Your task to perform on an android device: turn on airplane mode Image 0: 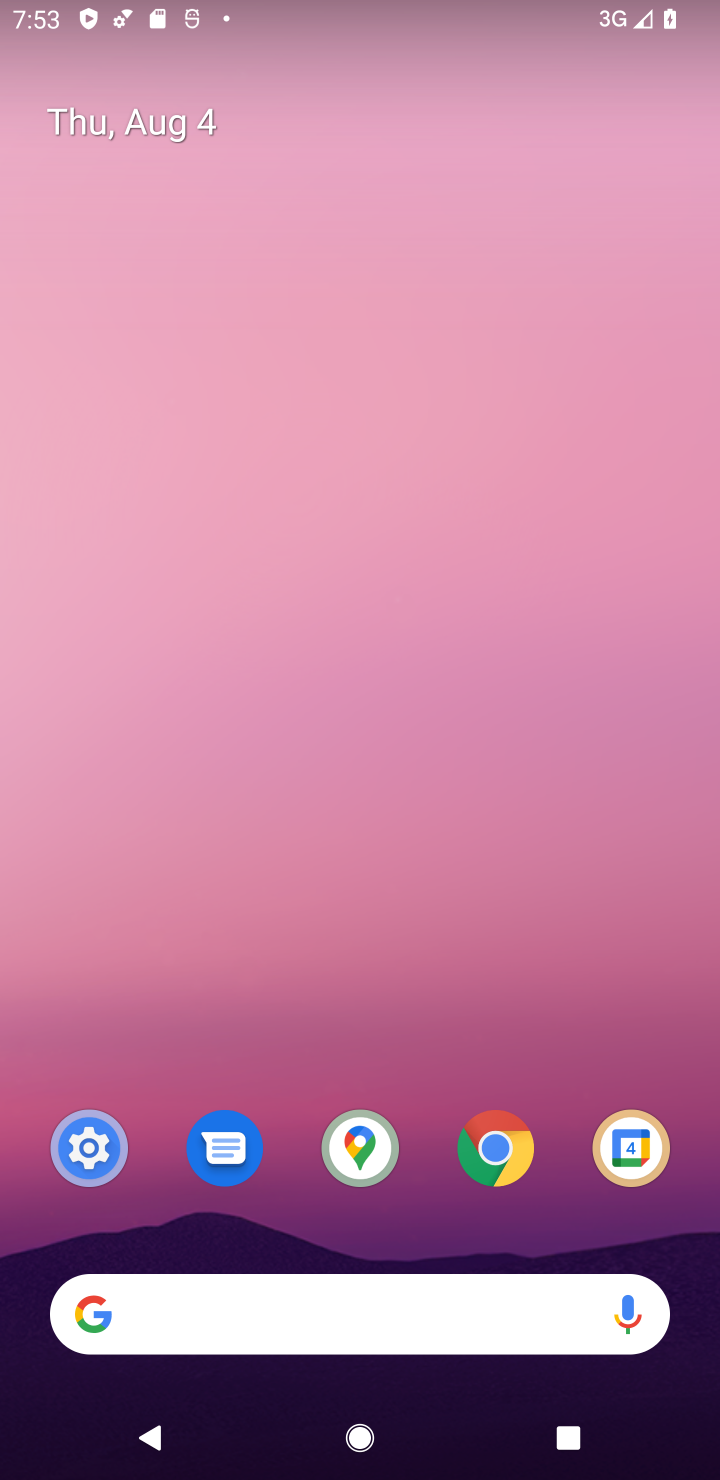
Step 0: click (88, 1143)
Your task to perform on an android device: turn on airplane mode Image 1: 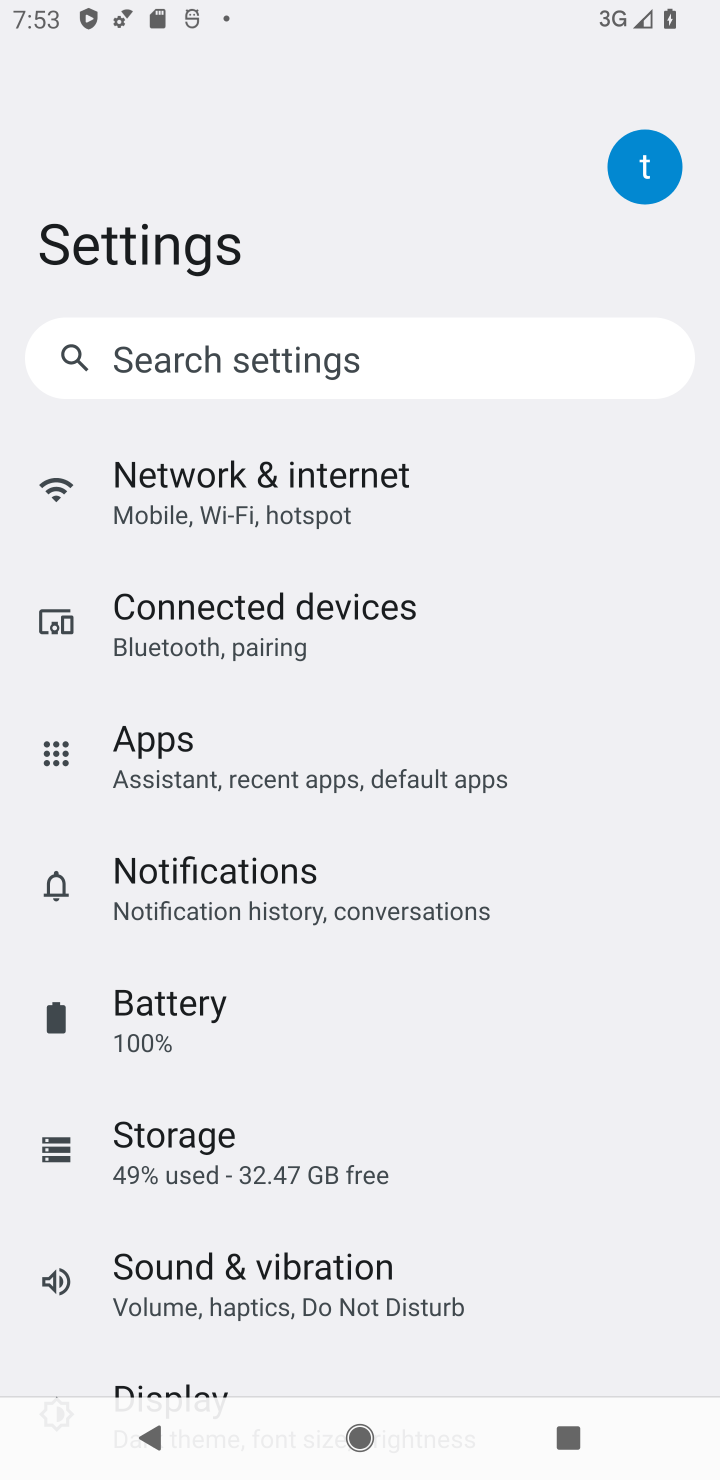
Step 1: click (240, 516)
Your task to perform on an android device: turn on airplane mode Image 2: 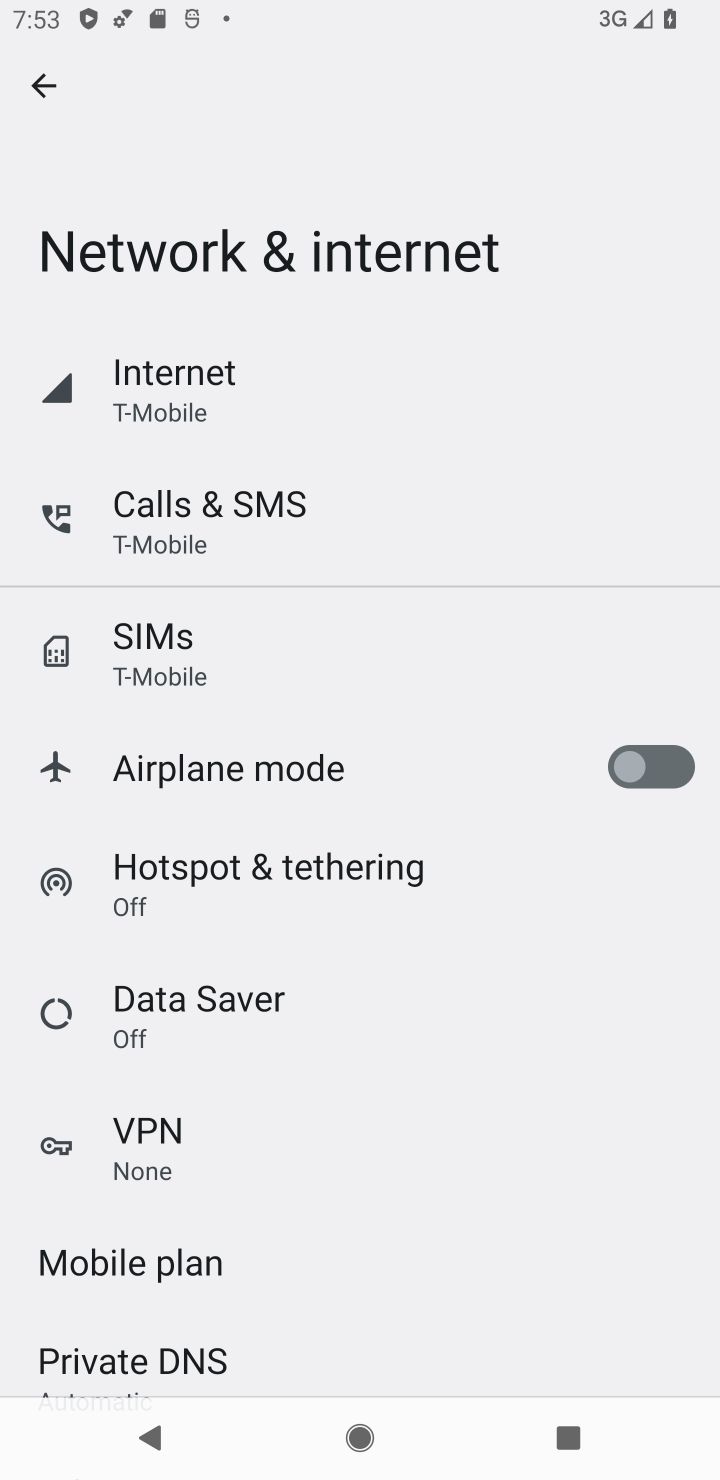
Step 2: click (668, 797)
Your task to perform on an android device: turn on airplane mode Image 3: 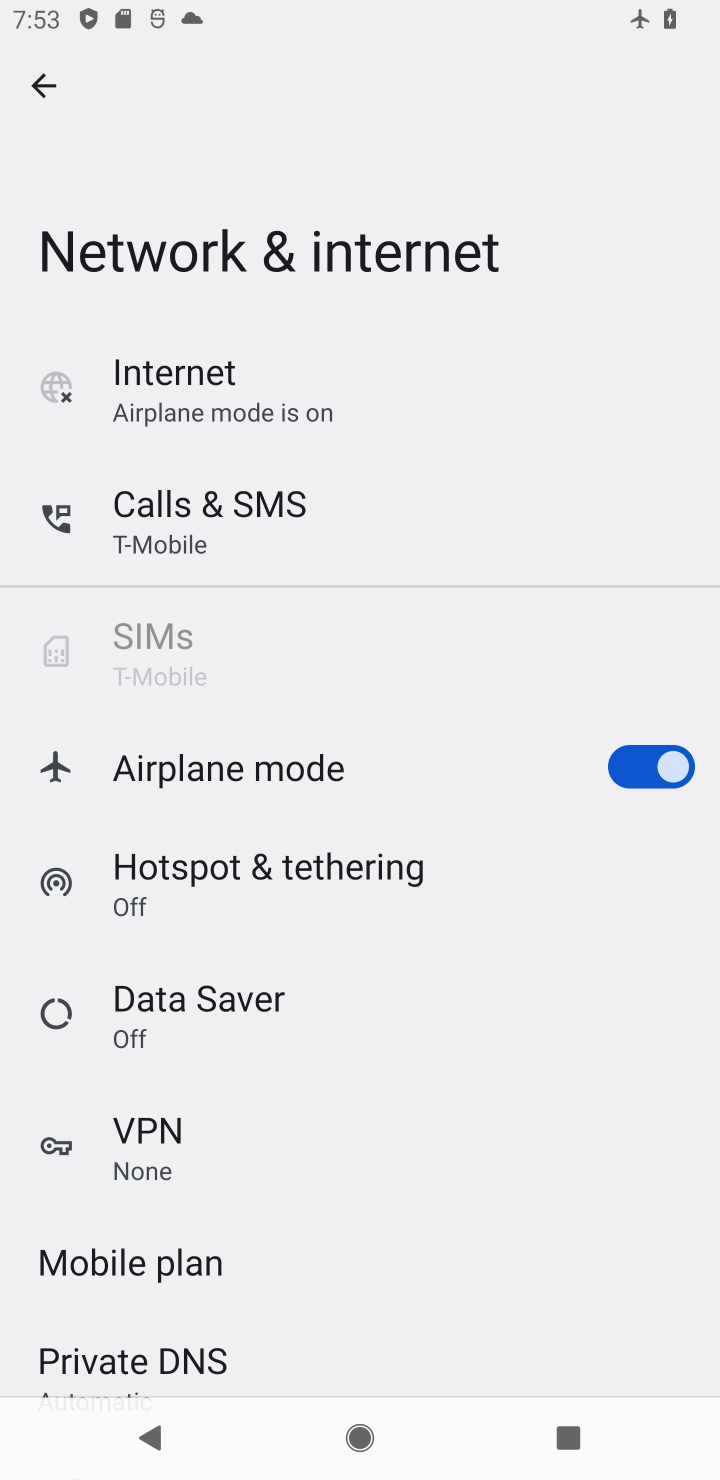
Step 3: task complete